Your task to perform on an android device: Open Google Chrome Image 0: 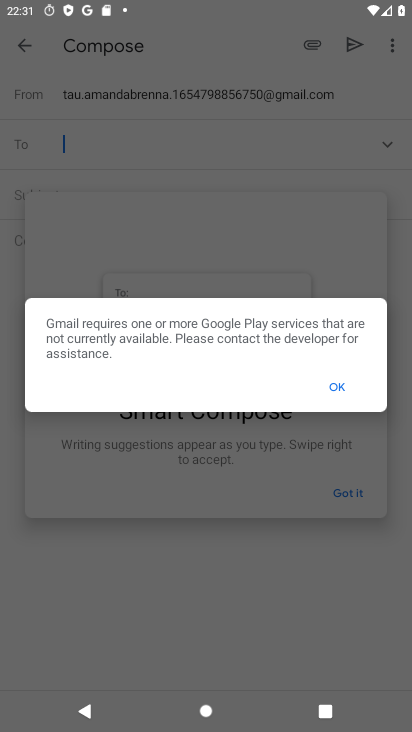
Step 0: press home button
Your task to perform on an android device: Open Google Chrome Image 1: 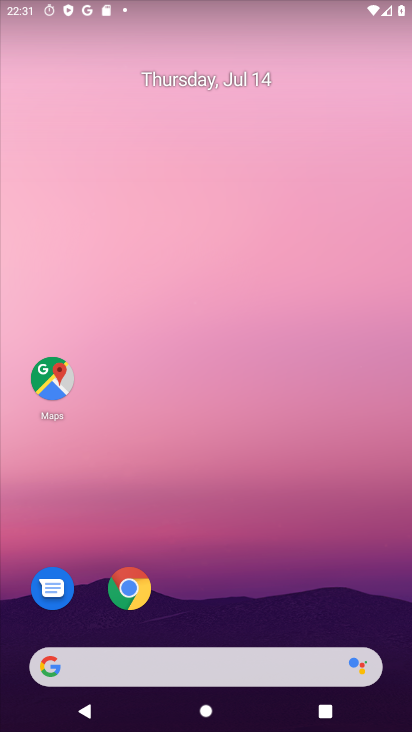
Step 1: click (133, 596)
Your task to perform on an android device: Open Google Chrome Image 2: 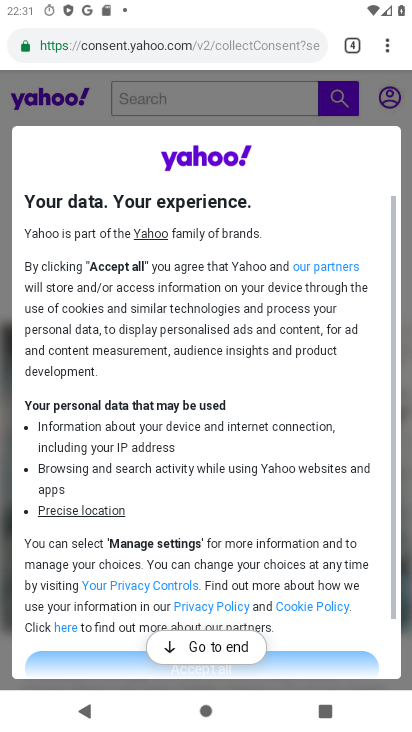
Step 2: task complete